Your task to perform on an android device: Show me the alarms in the clock app Image 0: 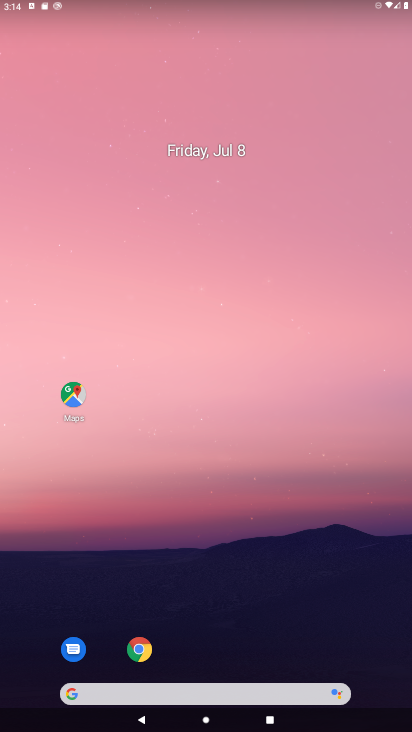
Step 0: drag from (386, 628) to (358, 146)
Your task to perform on an android device: Show me the alarms in the clock app Image 1: 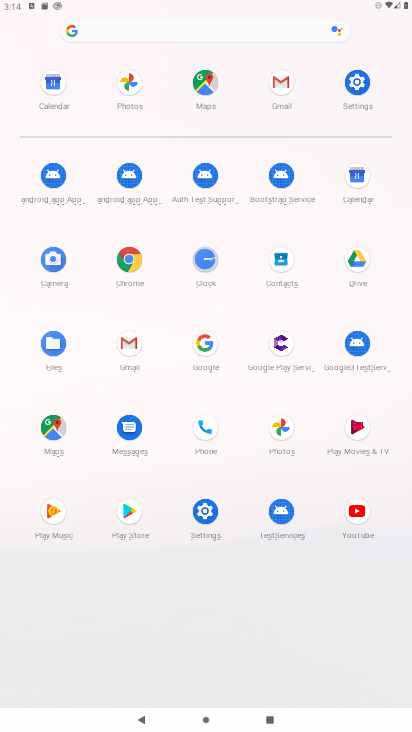
Step 1: click (205, 261)
Your task to perform on an android device: Show me the alarms in the clock app Image 2: 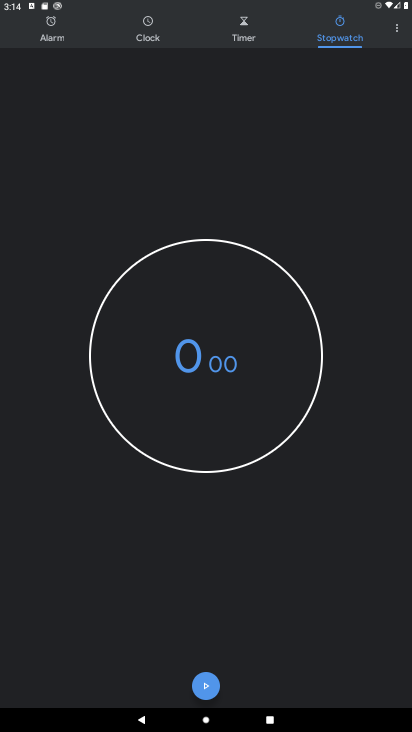
Step 2: click (53, 34)
Your task to perform on an android device: Show me the alarms in the clock app Image 3: 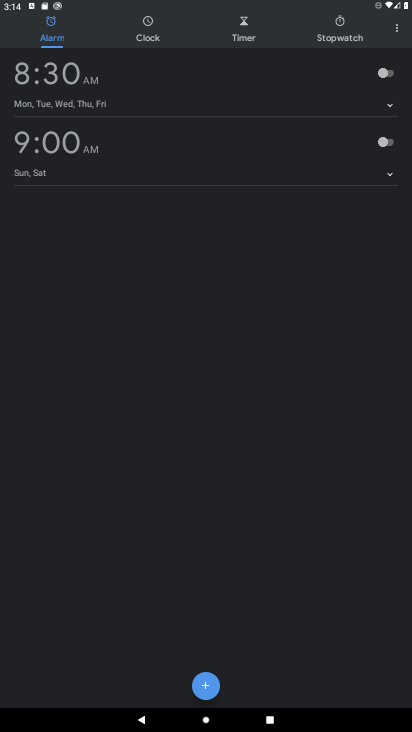
Step 3: task complete